Your task to perform on an android device: What's on my calendar tomorrow? Image 0: 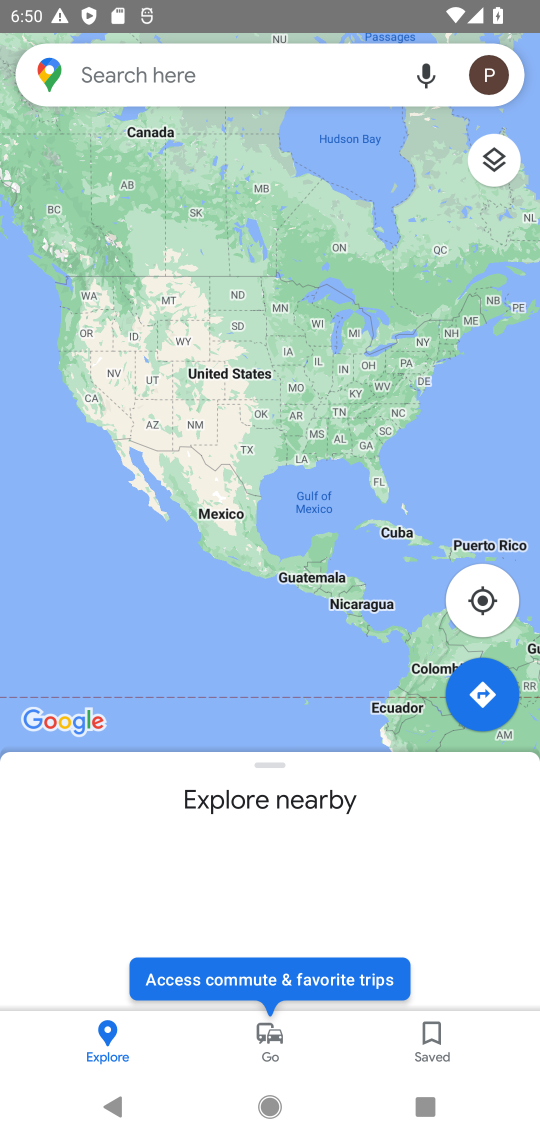
Step 0: press home button
Your task to perform on an android device: What's on my calendar tomorrow? Image 1: 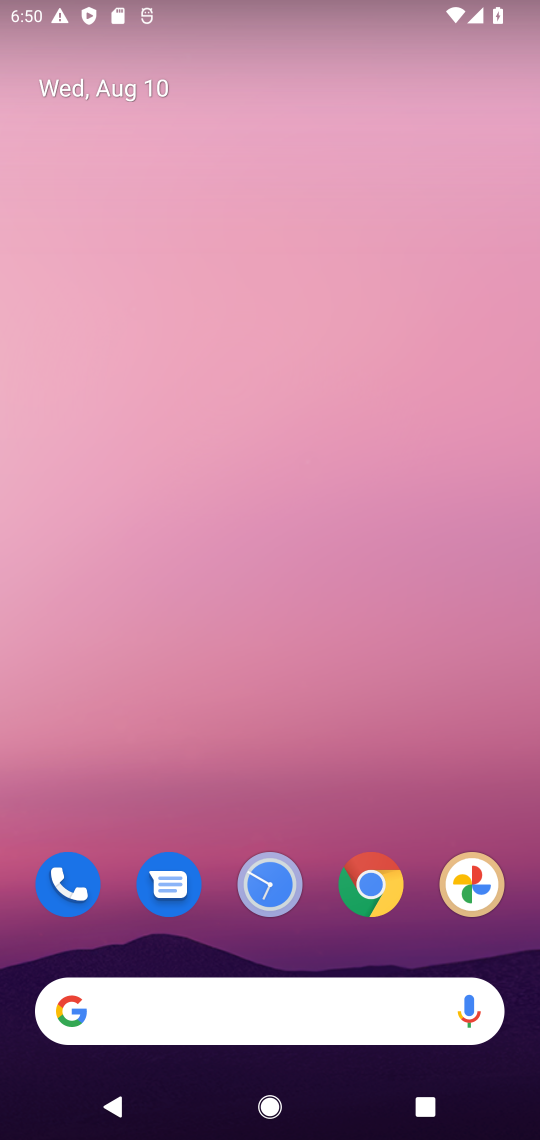
Step 1: click (118, 1000)
Your task to perform on an android device: What's on my calendar tomorrow? Image 2: 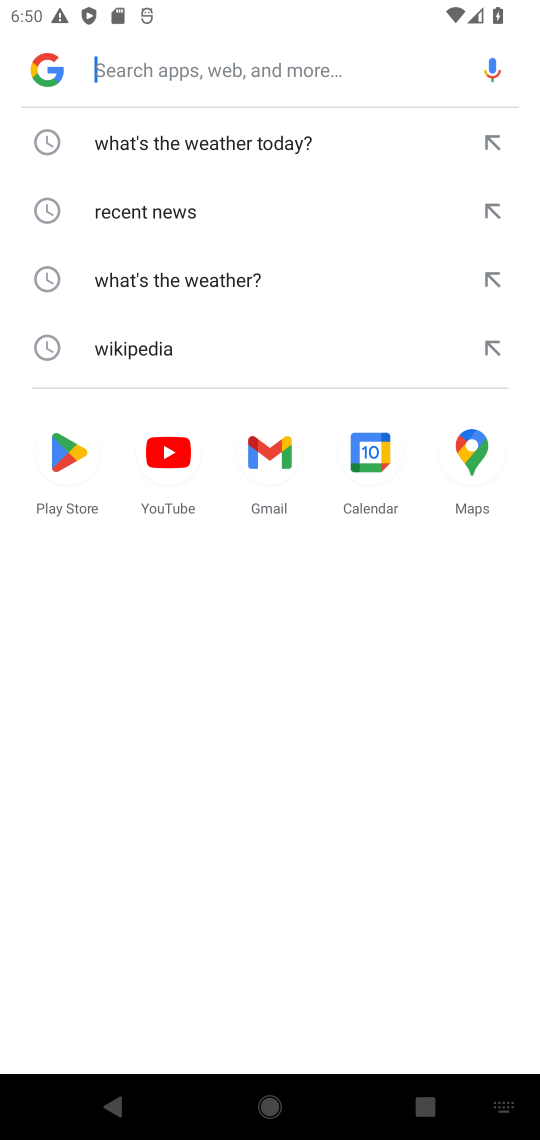
Step 2: type "What's on my calendar tomorrow?"
Your task to perform on an android device: What's on my calendar tomorrow? Image 3: 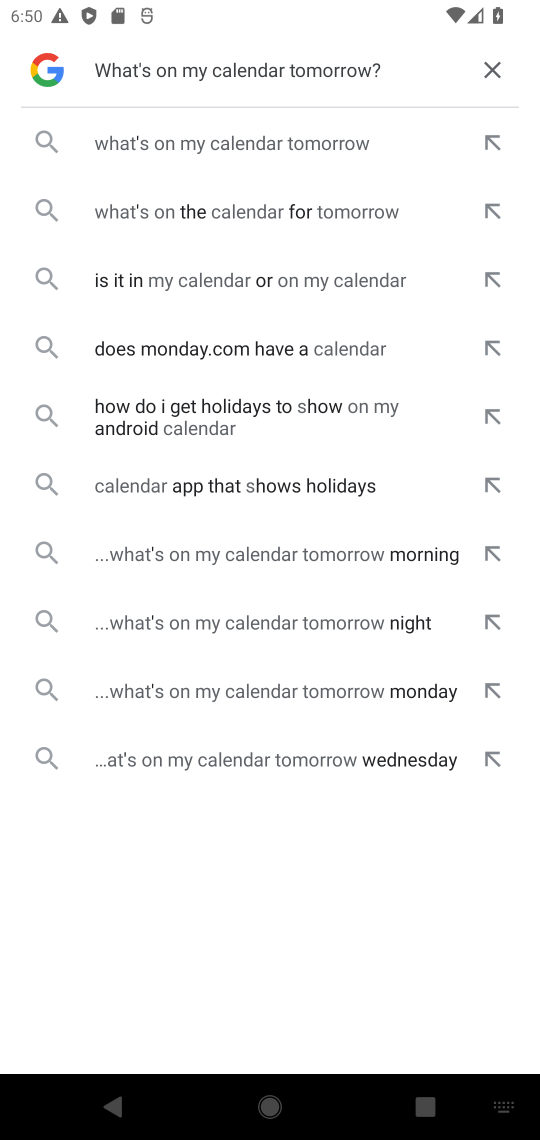
Step 3: click (276, 139)
Your task to perform on an android device: What's on my calendar tomorrow? Image 4: 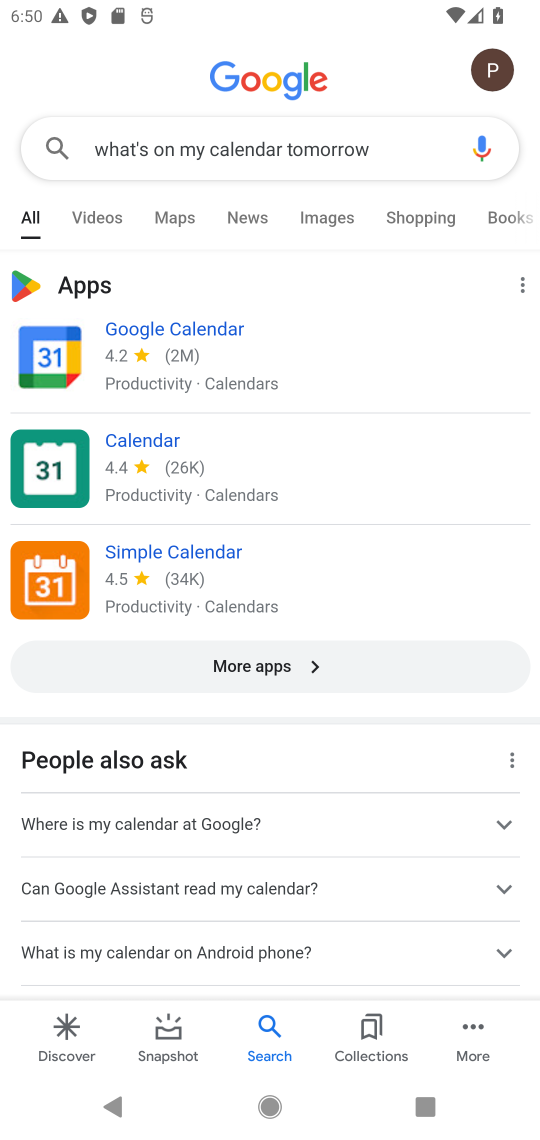
Step 4: task complete